Your task to perform on an android device: turn on showing notifications on the lock screen Image 0: 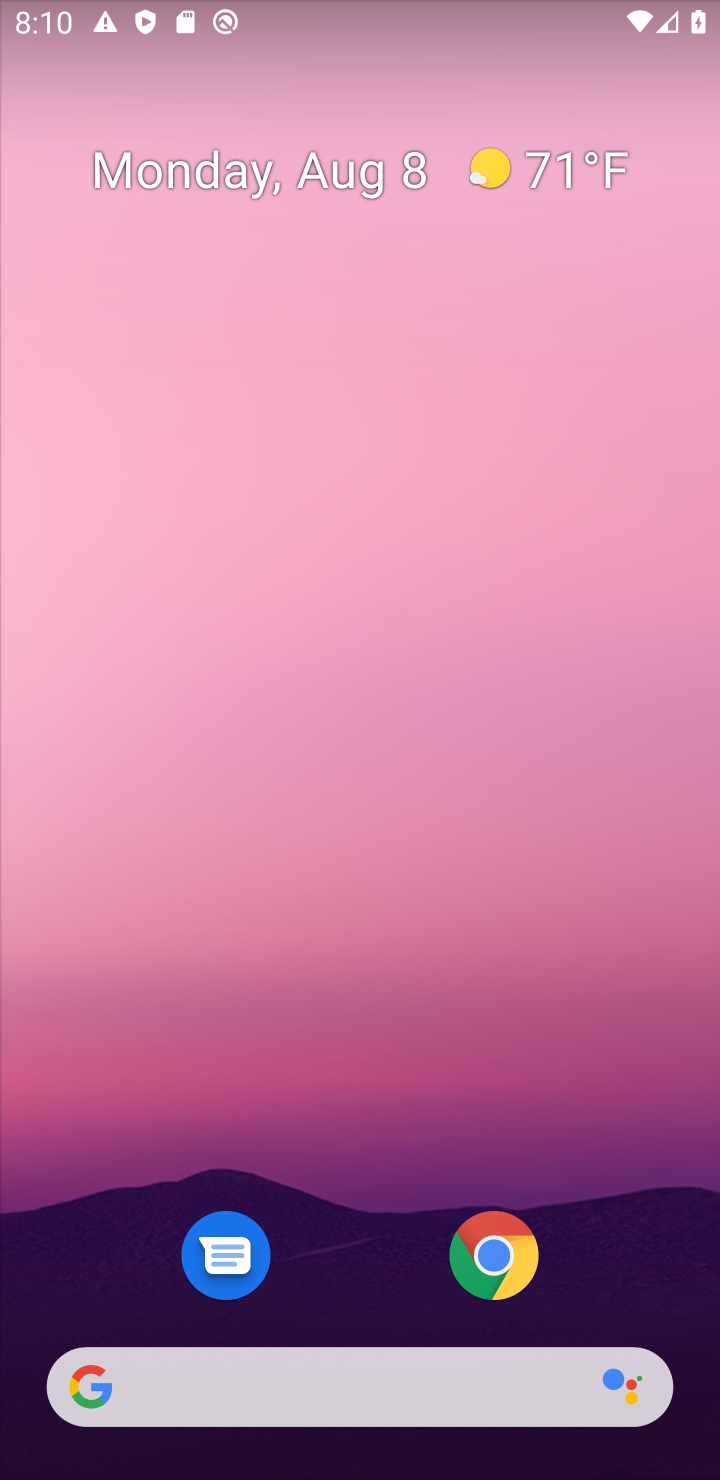
Step 0: drag from (362, 24) to (225, 1136)
Your task to perform on an android device: turn on showing notifications on the lock screen Image 1: 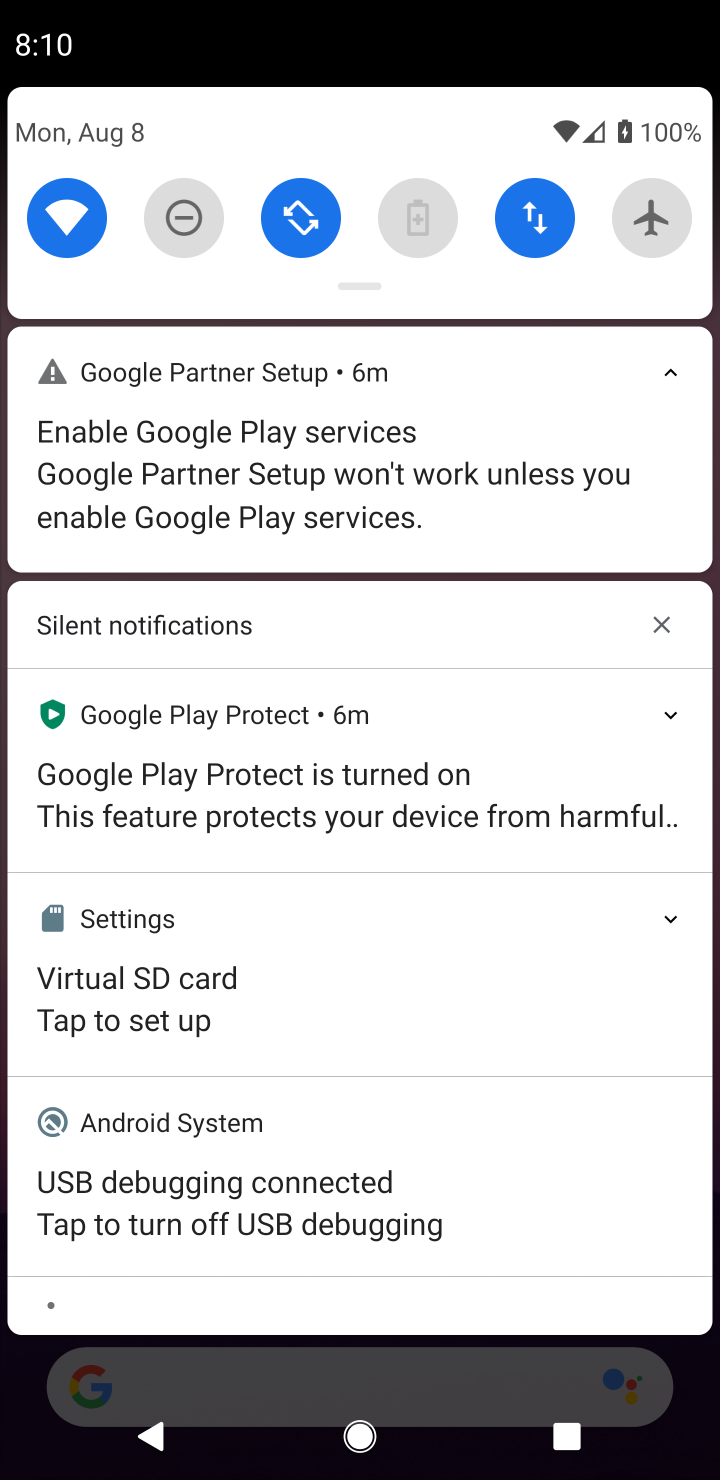
Step 1: drag from (341, 116) to (359, 1057)
Your task to perform on an android device: turn on showing notifications on the lock screen Image 2: 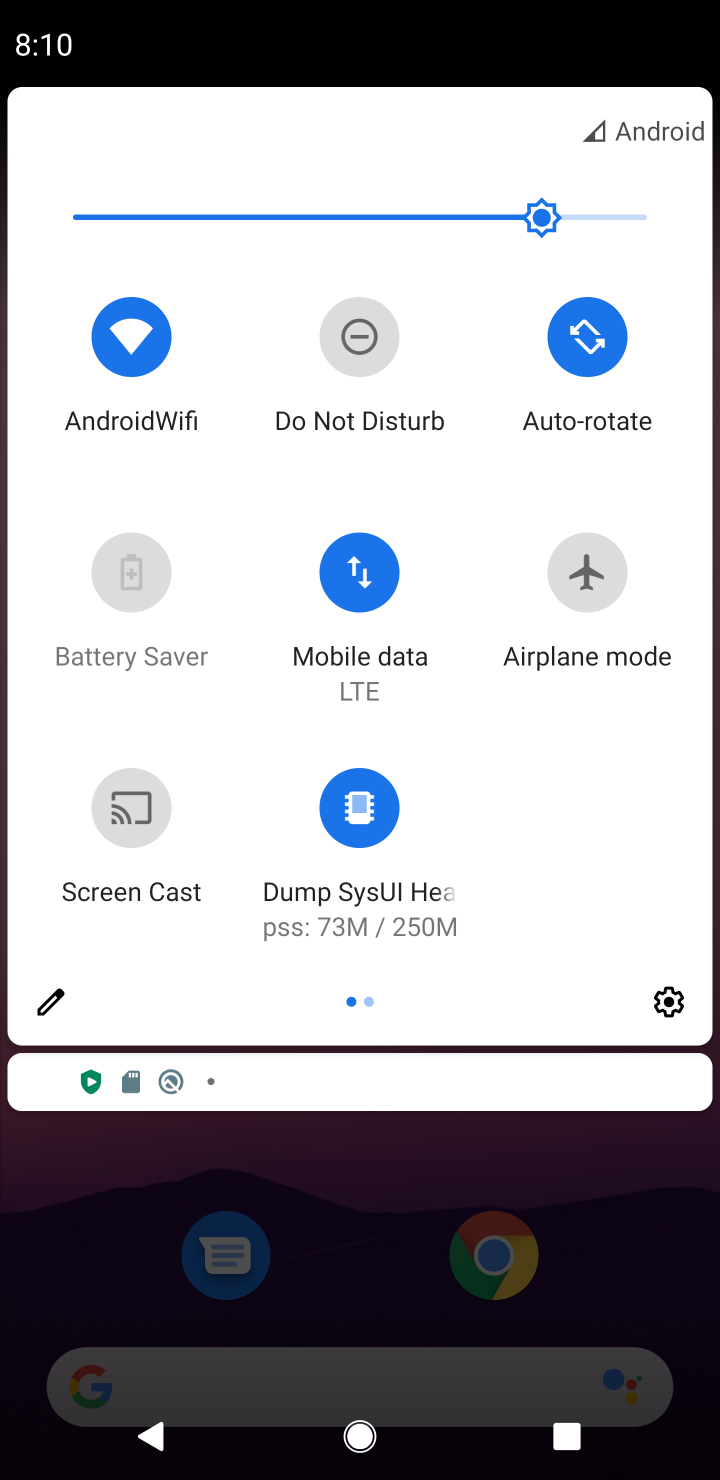
Step 2: click (675, 1002)
Your task to perform on an android device: turn on showing notifications on the lock screen Image 3: 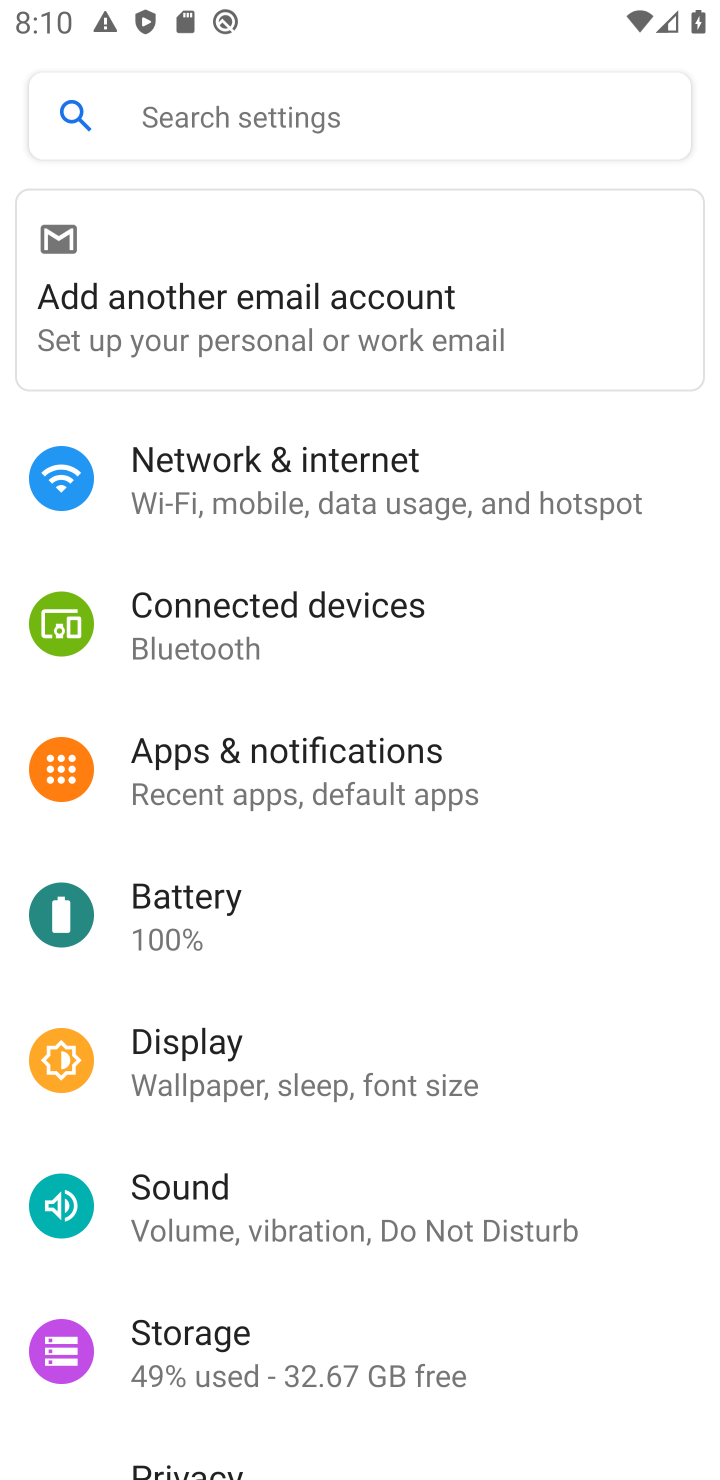
Step 3: click (195, 753)
Your task to perform on an android device: turn on showing notifications on the lock screen Image 4: 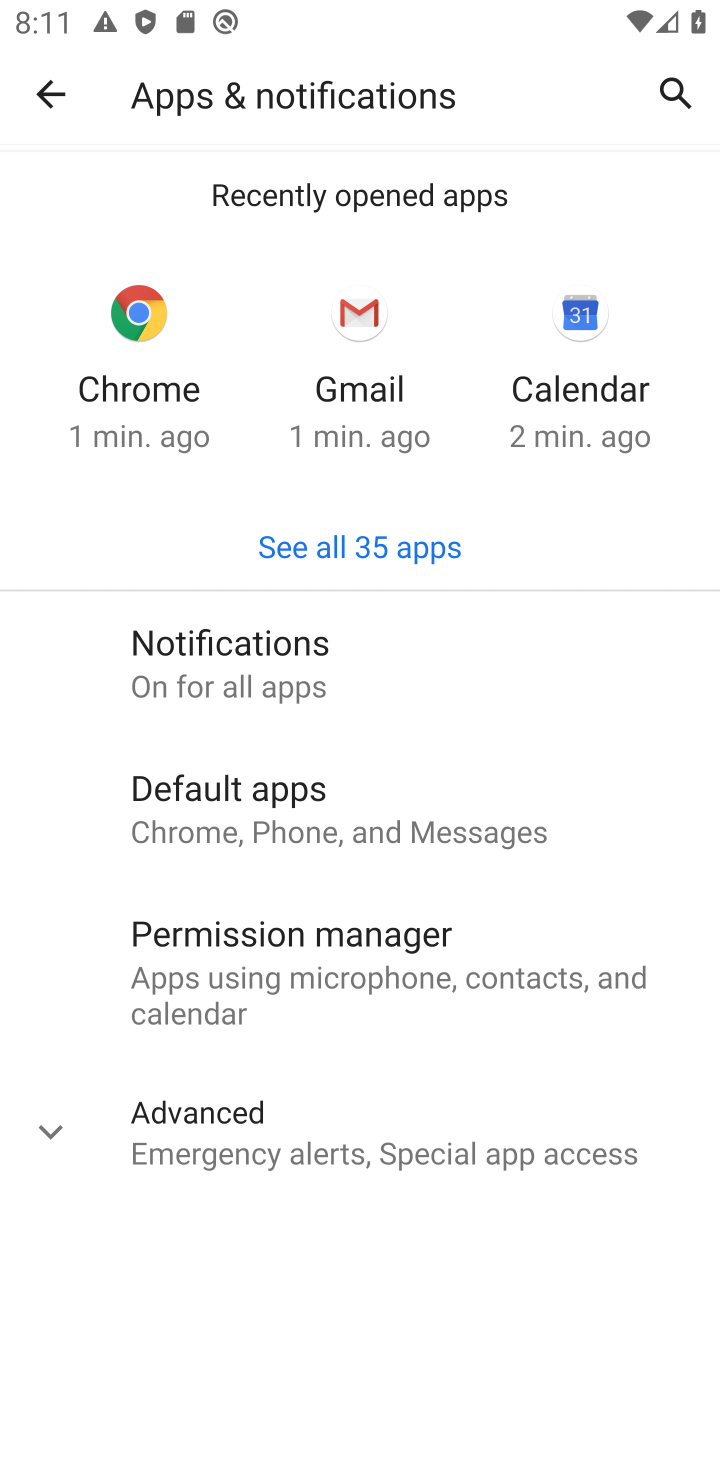
Step 4: click (183, 1139)
Your task to perform on an android device: turn on showing notifications on the lock screen Image 5: 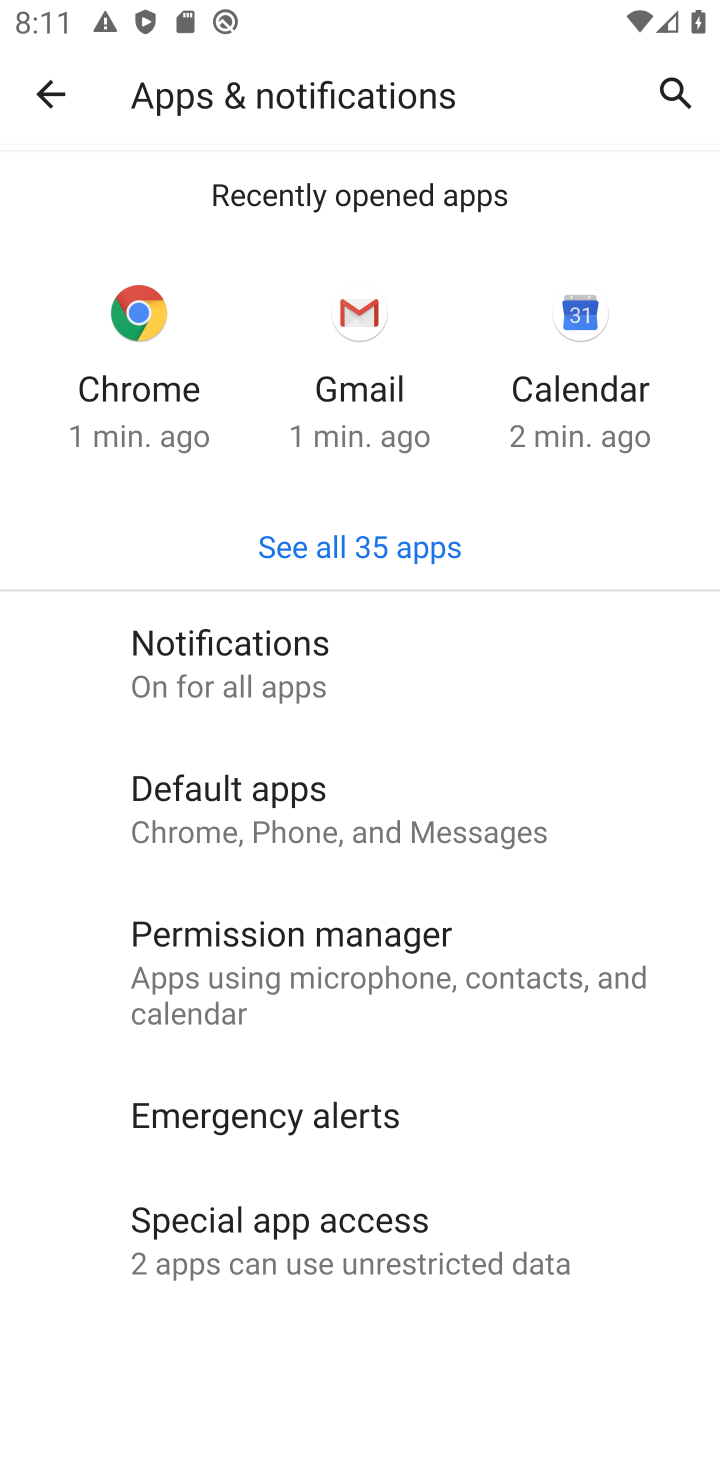
Step 5: click (244, 636)
Your task to perform on an android device: turn on showing notifications on the lock screen Image 6: 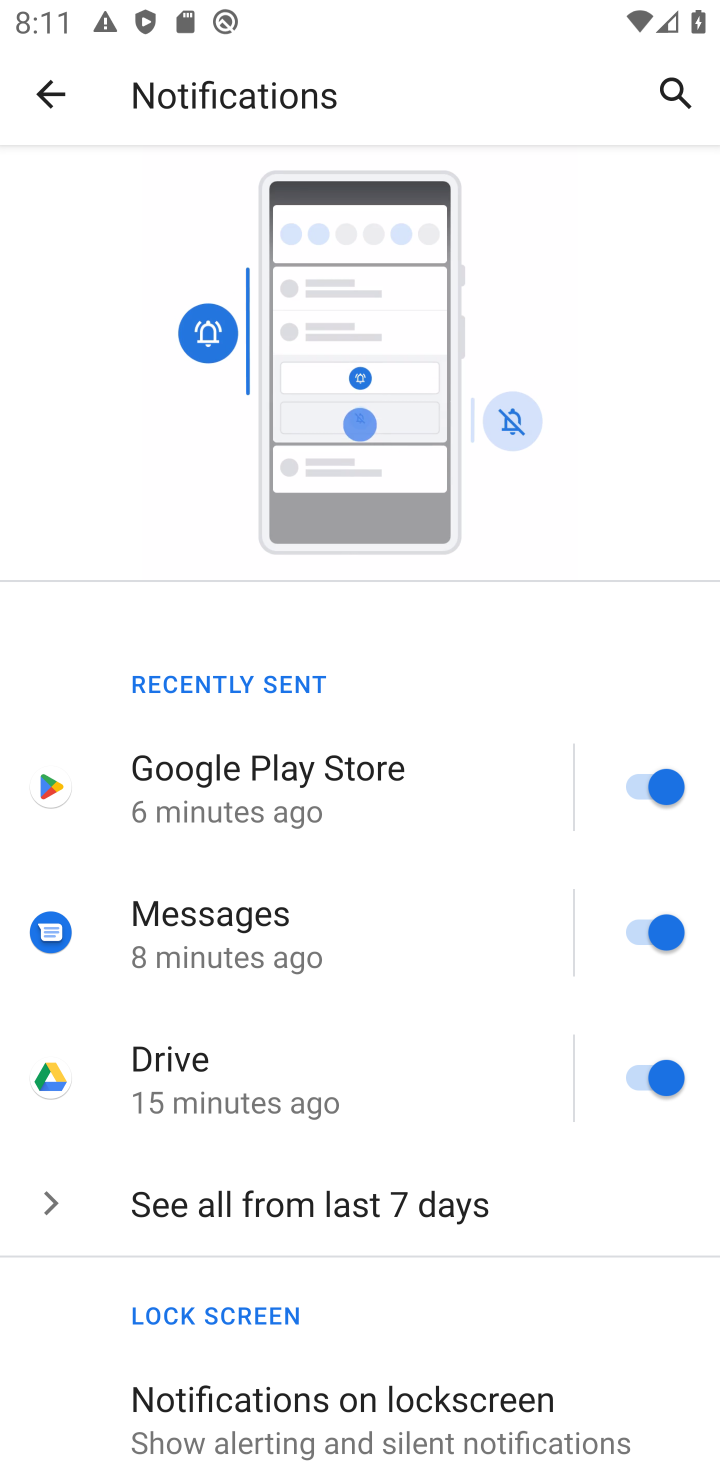
Step 6: click (309, 1429)
Your task to perform on an android device: turn on showing notifications on the lock screen Image 7: 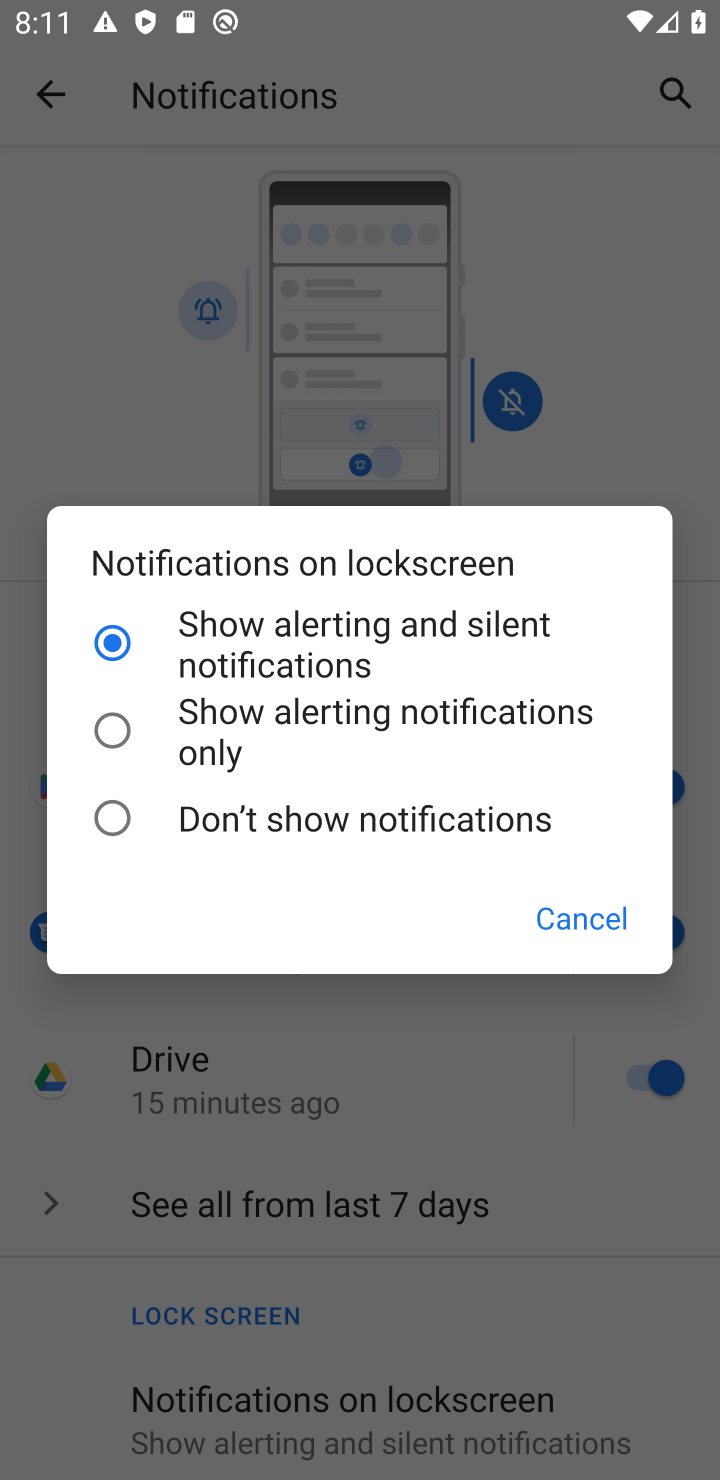
Step 7: task complete